Your task to perform on an android device: What's the weather going to be this weekend? Image 0: 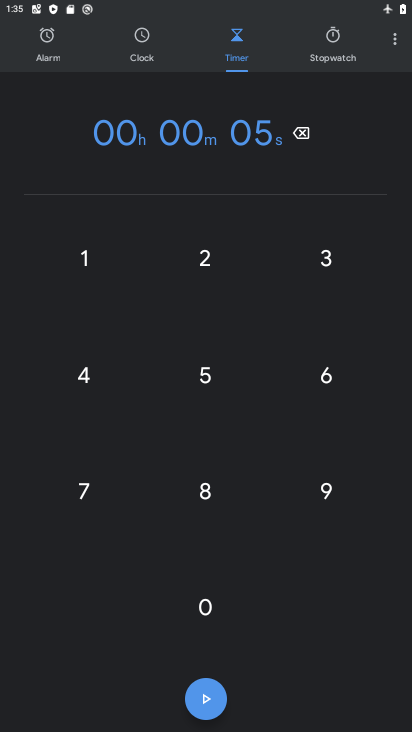
Step 0: press home button
Your task to perform on an android device: What's the weather going to be this weekend? Image 1: 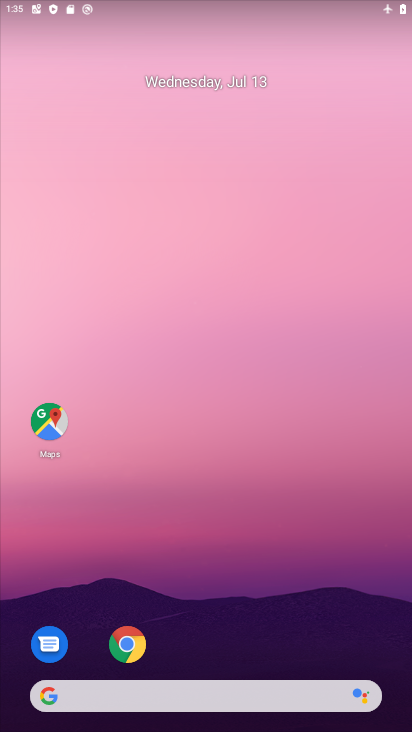
Step 1: drag from (317, 637) to (357, 32)
Your task to perform on an android device: What's the weather going to be this weekend? Image 2: 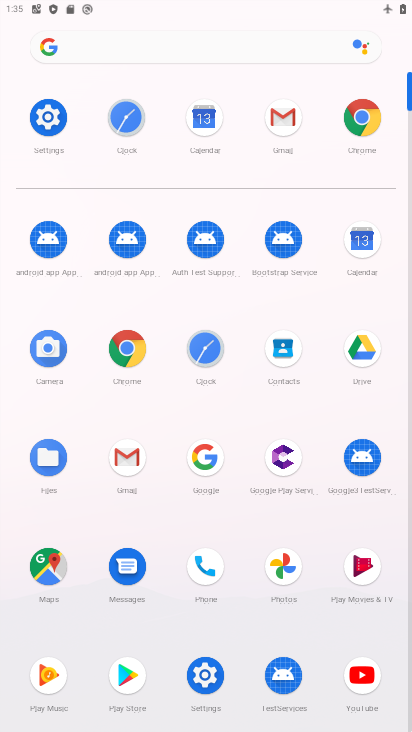
Step 2: click (365, 121)
Your task to perform on an android device: What's the weather going to be this weekend? Image 3: 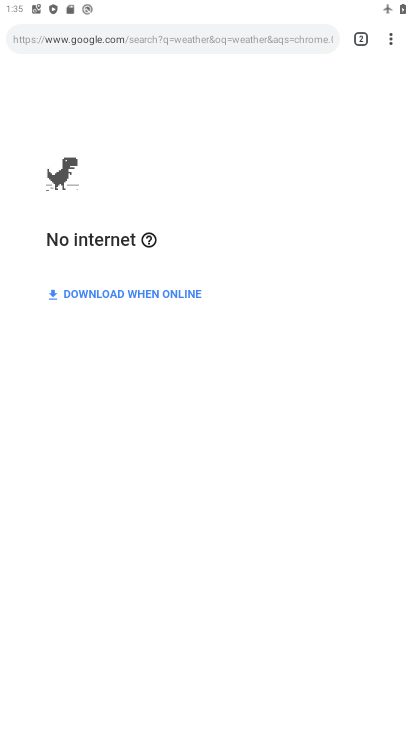
Step 3: click (179, 31)
Your task to perform on an android device: What's the weather going to be this weekend? Image 4: 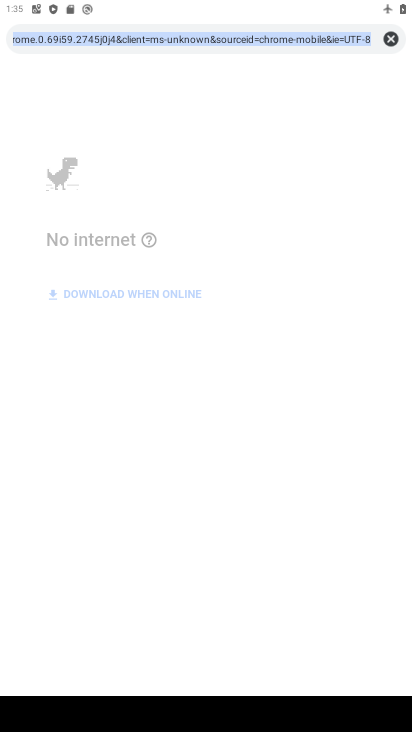
Step 4: type "weather"
Your task to perform on an android device: What's the weather going to be this weekend? Image 5: 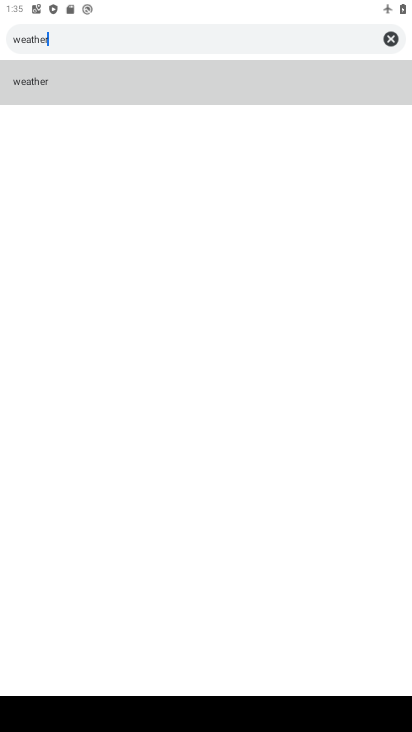
Step 5: click (44, 82)
Your task to perform on an android device: What's the weather going to be this weekend? Image 6: 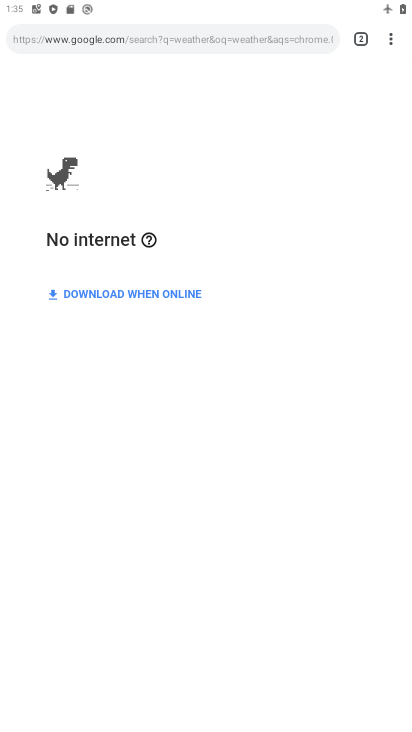
Step 6: task complete